Your task to perform on an android device: turn off notifications in google photos Image 0: 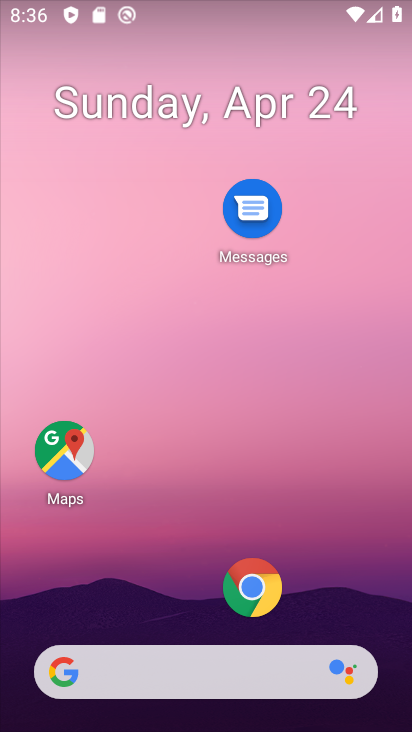
Step 0: drag from (171, 307) to (386, 2)
Your task to perform on an android device: turn off notifications in google photos Image 1: 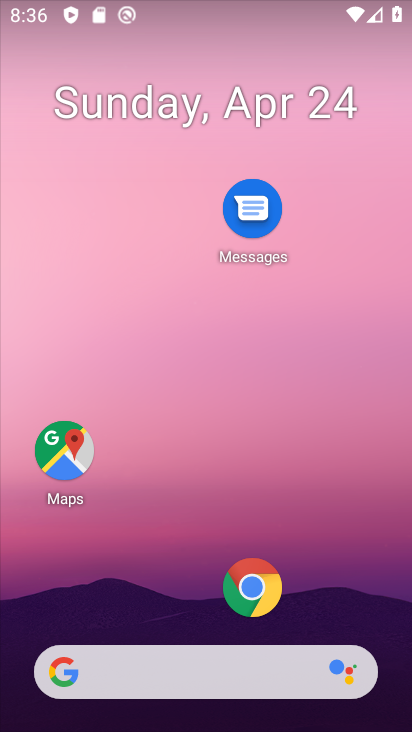
Step 1: drag from (167, 631) to (377, 51)
Your task to perform on an android device: turn off notifications in google photos Image 2: 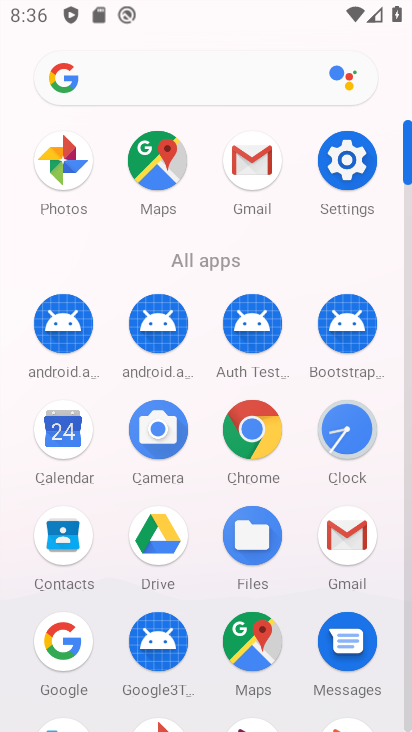
Step 2: drag from (218, 474) to (239, 53)
Your task to perform on an android device: turn off notifications in google photos Image 3: 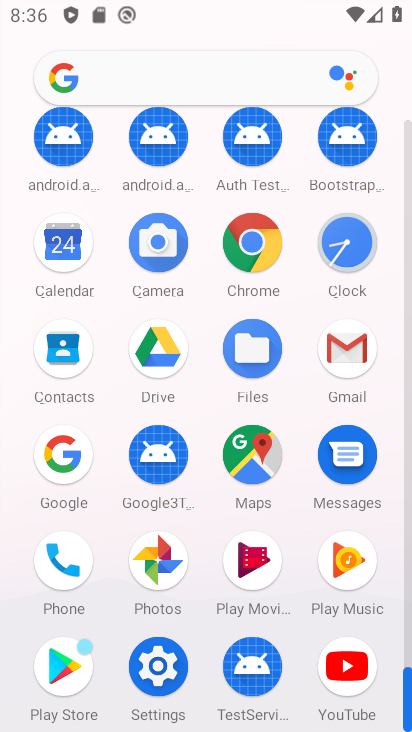
Step 3: click (163, 562)
Your task to perform on an android device: turn off notifications in google photos Image 4: 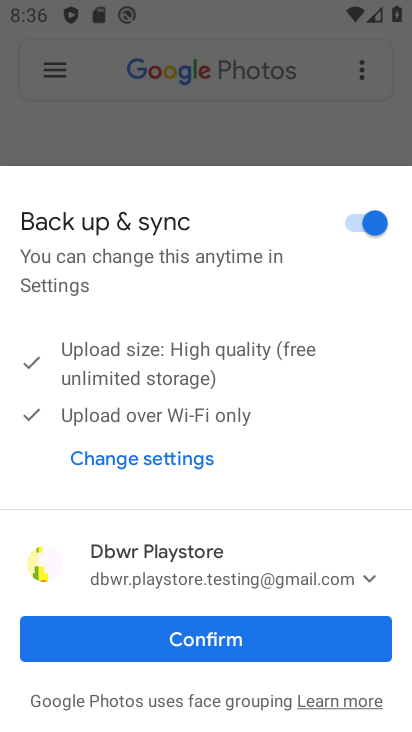
Step 4: click (174, 625)
Your task to perform on an android device: turn off notifications in google photos Image 5: 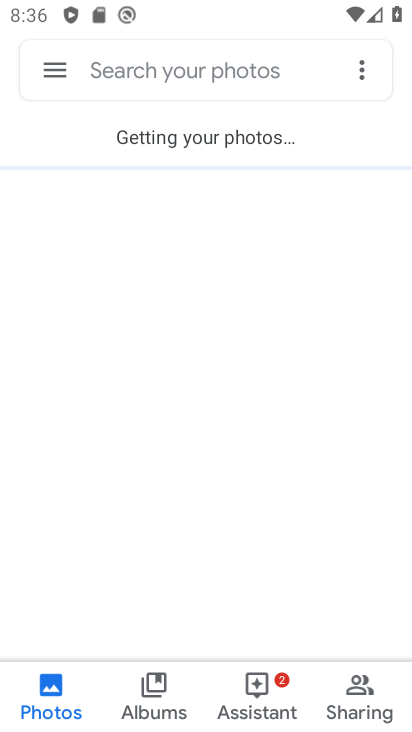
Step 5: click (59, 75)
Your task to perform on an android device: turn off notifications in google photos Image 6: 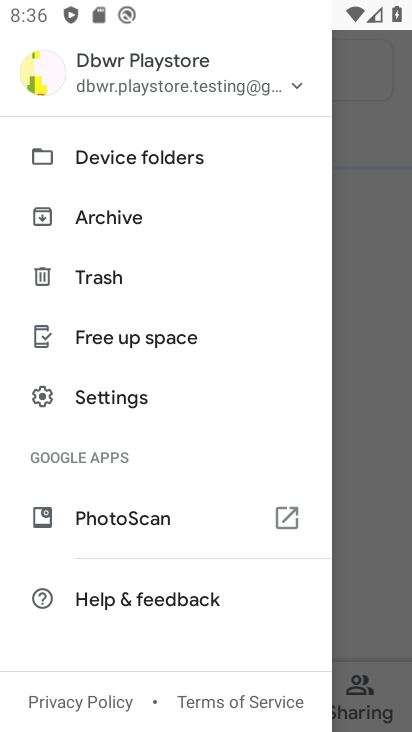
Step 6: click (135, 398)
Your task to perform on an android device: turn off notifications in google photos Image 7: 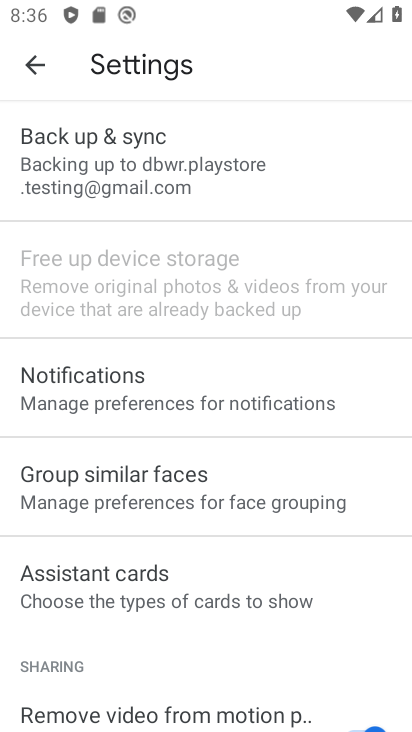
Step 7: click (108, 388)
Your task to perform on an android device: turn off notifications in google photos Image 8: 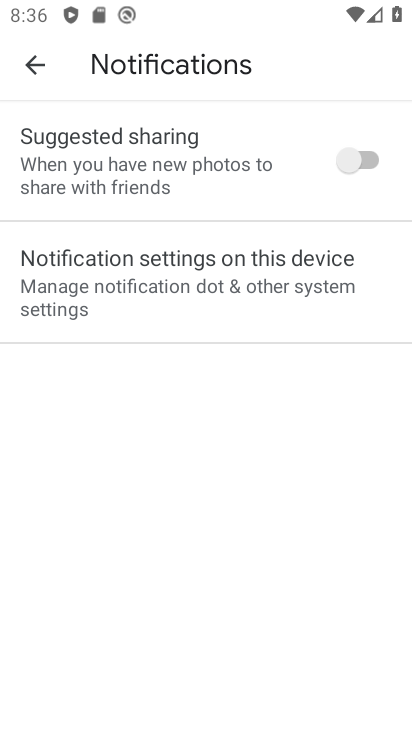
Step 8: click (131, 288)
Your task to perform on an android device: turn off notifications in google photos Image 9: 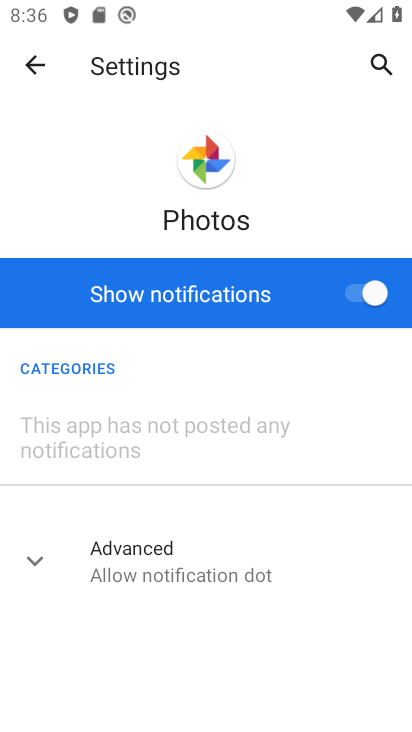
Step 9: click (348, 298)
Your task to perform on an android device: turn off notifications in google photos Image 10: 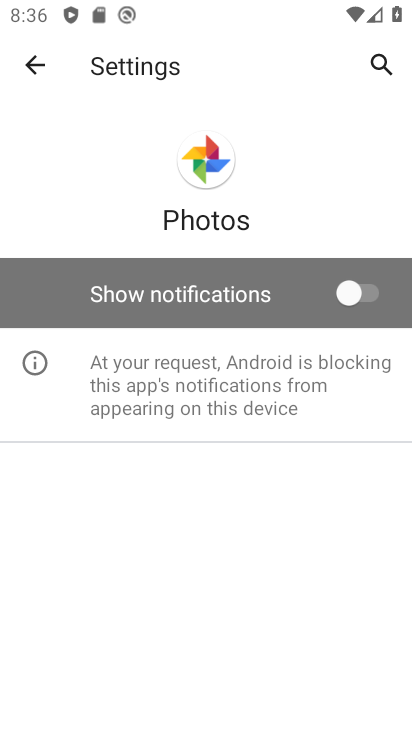
Step 10: task complete